Your task to perform on an android device: Go to Amazon Image 0: 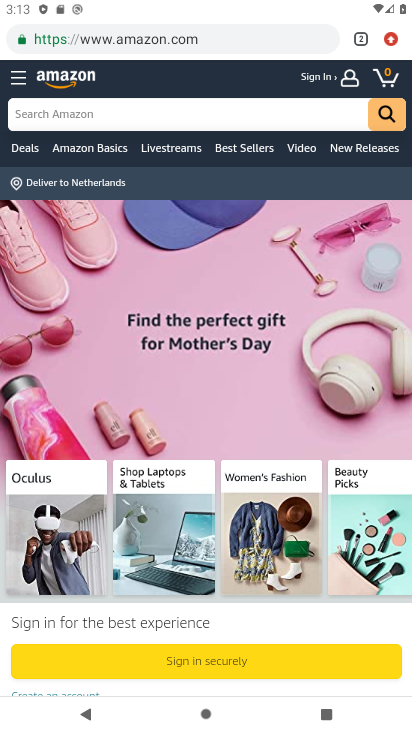
Step 0: task complete